Your task to perform on an android device: Open sound settings Image 0: 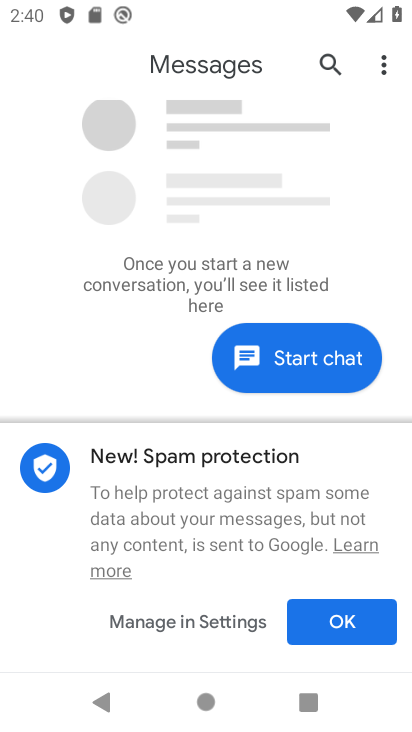
Step 0: press home button
Your task to perform on an android device: Open sound settings Image 1: 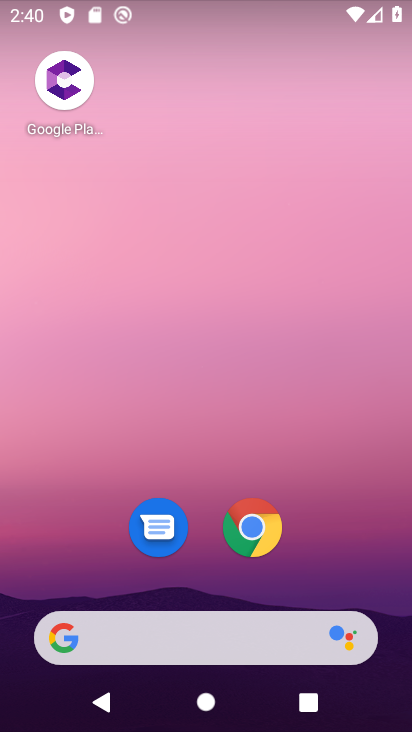
Step 1: drag from (198, 596) to (193, 217)
Your task to perform on an android device: Open sound settings Image 2: 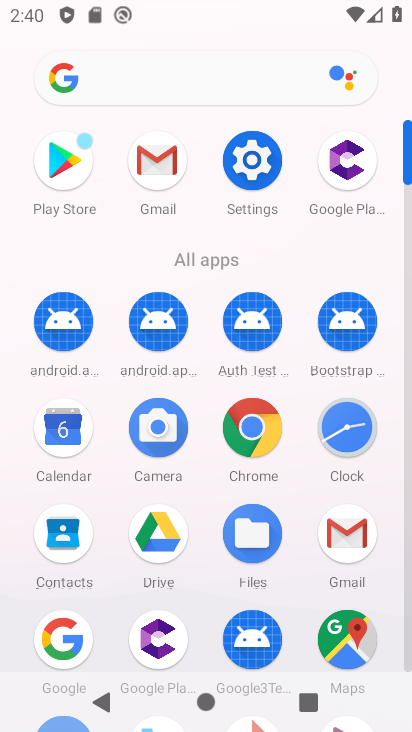
Step 2: click (257, 168)
Your task to perform on an android device: Open sound settings Image 3: 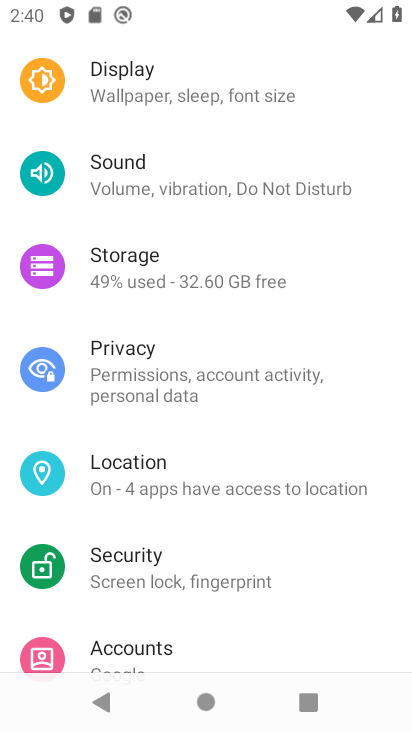
Step 3: click (161, 174)
Your task to perform on an android device: Open sound settings Image 4: 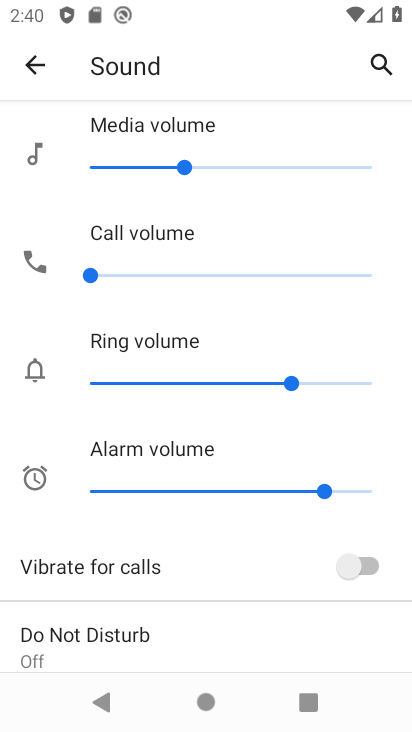
Step 4: task complete